Your task to perform on an android device: What's on my calendar tomorrow? Image 0: 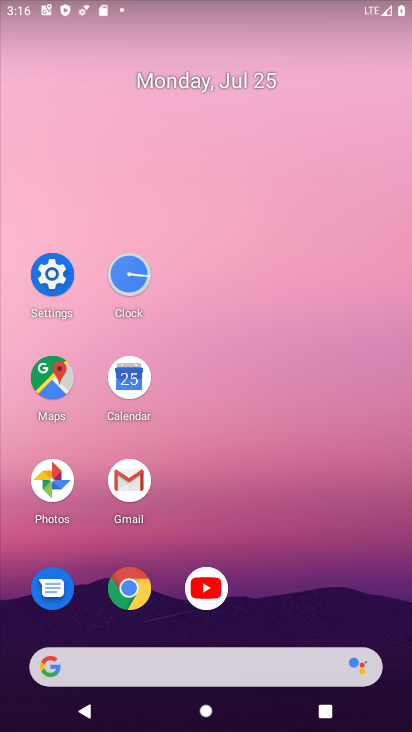
Step 0: click (103, 380)
Your task to perform on an android device: What's on my calendar tomorrow? Image 1: 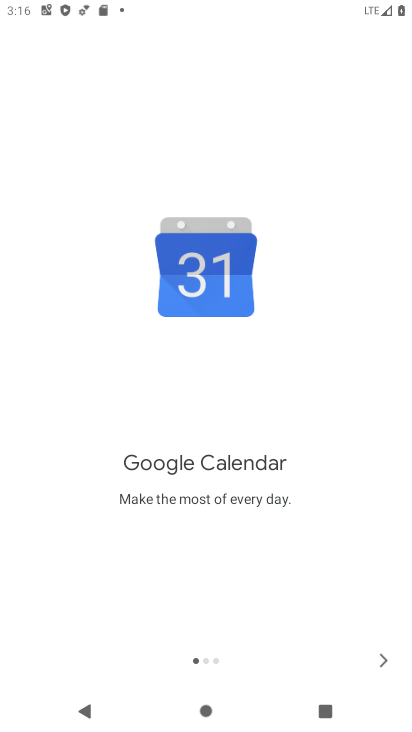
Step 1: click (390, 653)
Your task to perform on an android device: What's on my calendar tomorrow? Image 2: 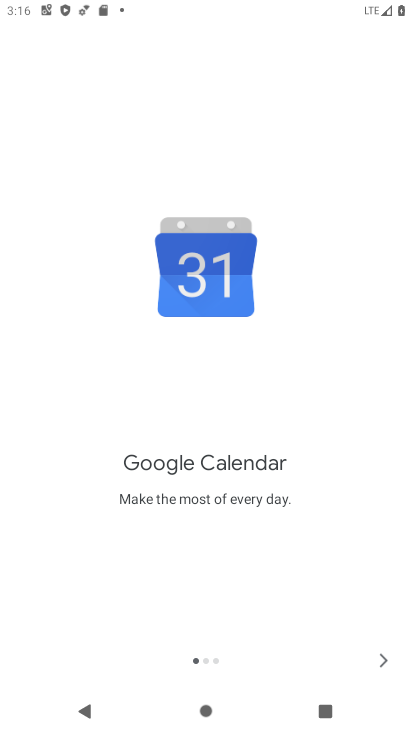
Step 2: click (390, 653)
Your task to perform on an android device: What's on my calendar tomorrow? Image 3: 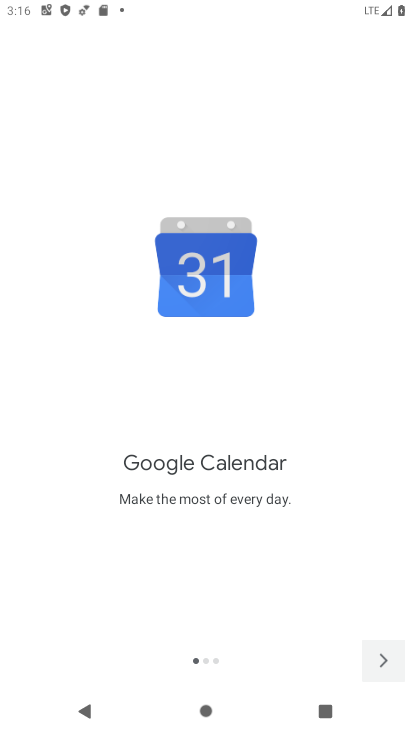
Step 3: click (390, 653)
Your task to perform on an android device: What's on my calendar tomorrow? Image 4: 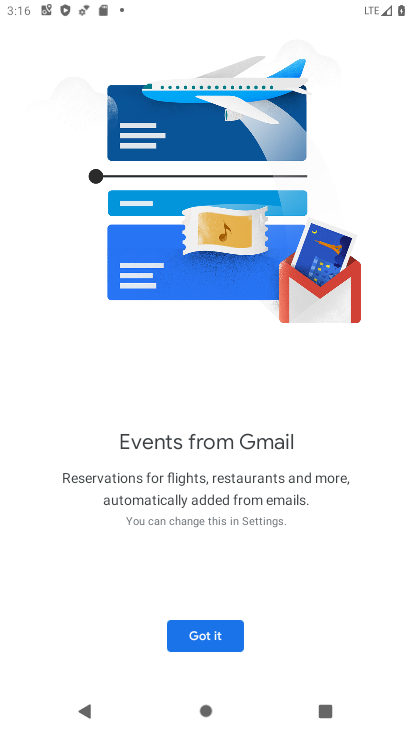
Step 4: click (188, 641)
Your task to perform on an android device: What's on my calendar tomorrow? Image 5: 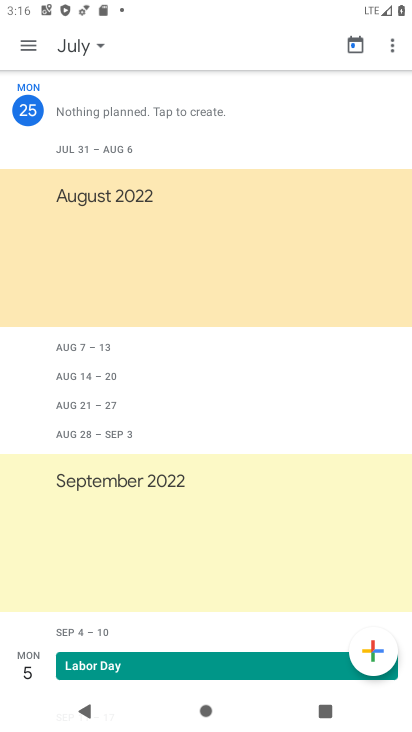
Step 5: click (27, 42)
Your task to perform on an android device: What's on my calendar tomorrow? Image 6: 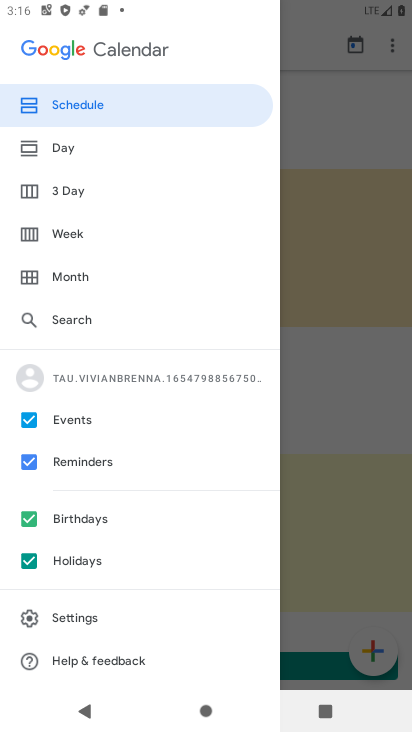
Step 6: click (61, 148)
Your task to perform on an android device: What's on my calendar tomorrow? Image 7: 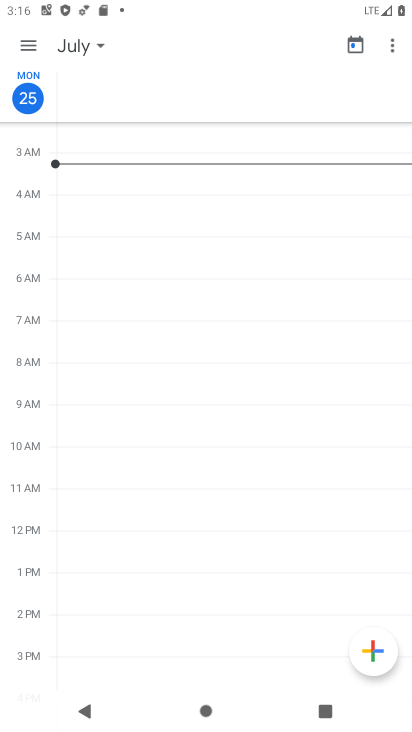
Step 7: click (98, 41)
Your task to perform on an android device: What's on my calendar tomorrow? Image 8: 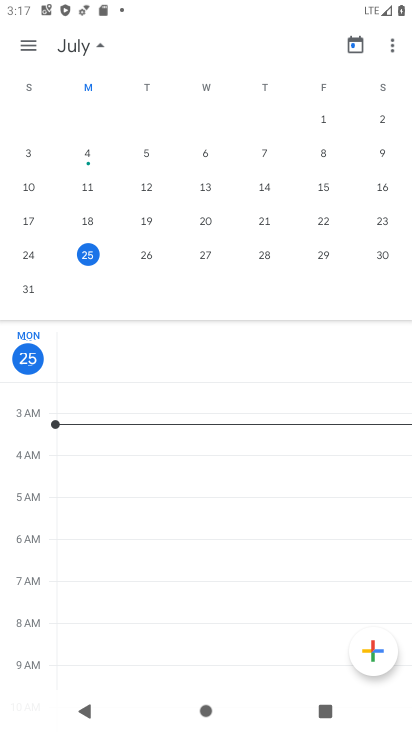
Step 8: click (142, 254)
Your task to perform on an android device: What's on my calendar tomorrow? Image 9: 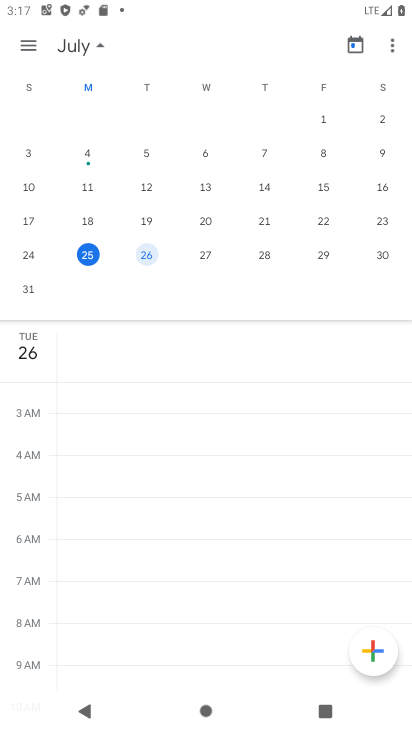
Step 9: task complete